Your task to perform on an android device: change the clock display to show seconds Image 0: 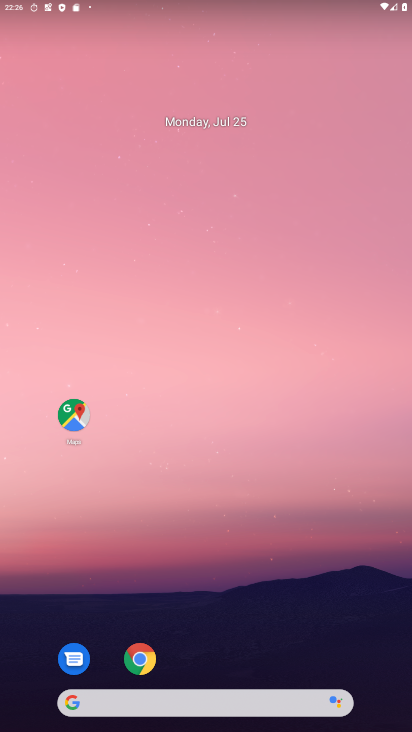
Step 0: drag from (212, 653) to (212, 190)
Your task to perform on an android device: change the clock display to show seconds Image 1: 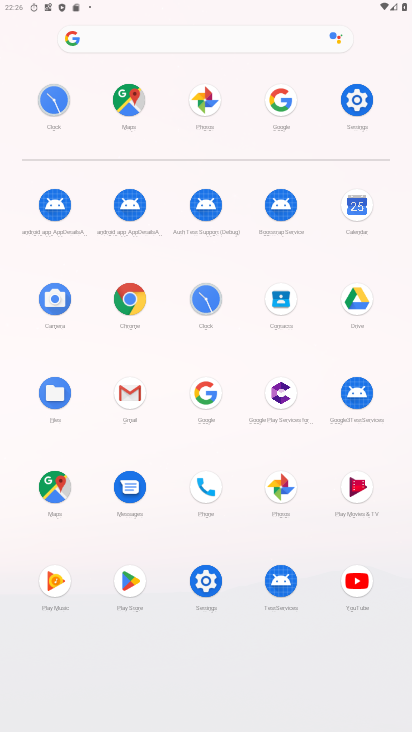
Step 1: click (43, 100)
Your task to perform on an android device: change the clock display to show seconds Image 2: 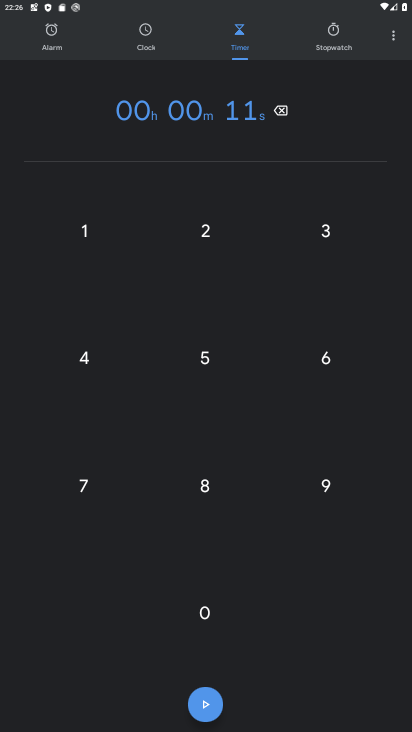
Step 2: click (390, 34)
Your task to perform on an android device: change the clock display to show seconds Image 3: 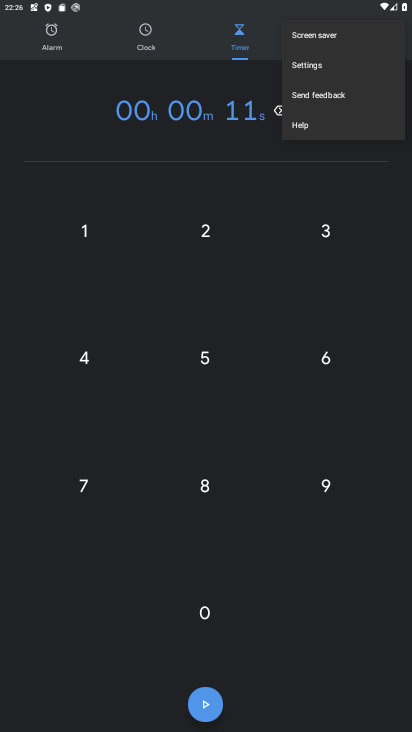
Step 3: click (319, 72)
Your task to perform on an android device: change the clock display to show seconds Image 4: 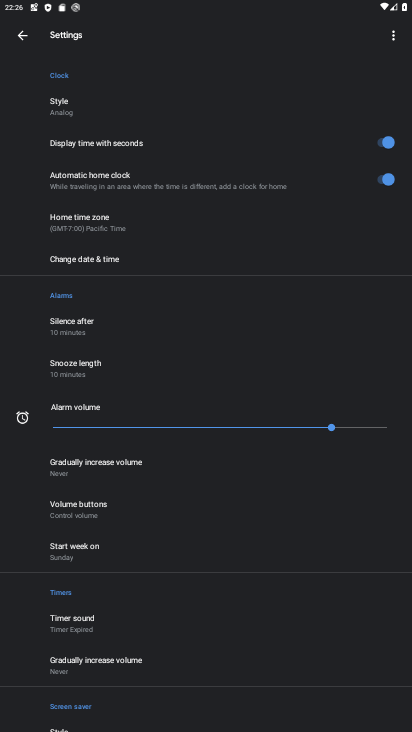
Step 4: task complete